Your task to perform on an android device: all mails in gmail Image 0: 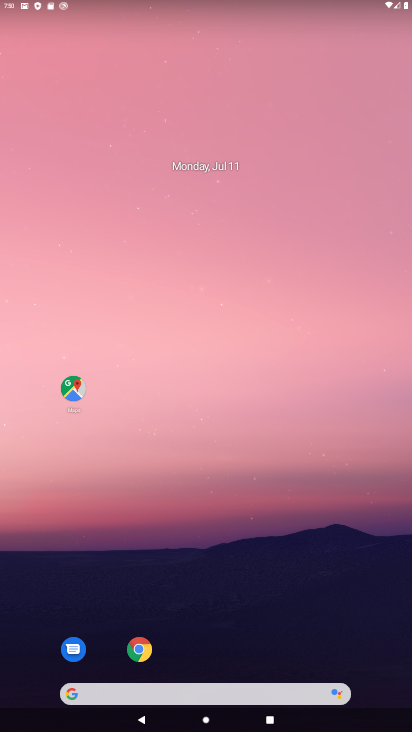
Step 0: drag from (238, 637) to (234, 56)
Your task to perform on an android device: all mails in gmail Image 1: 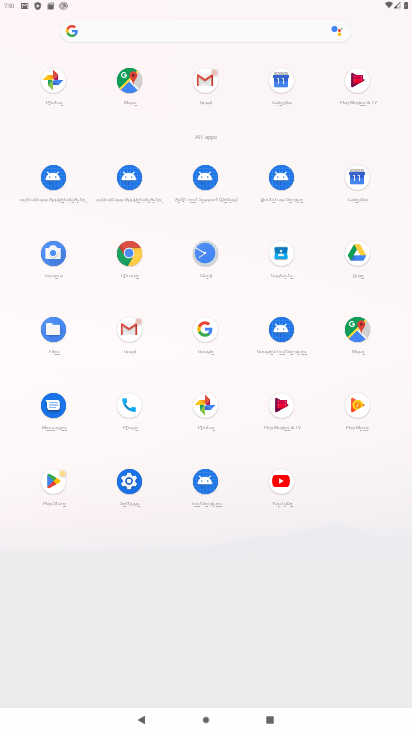
Step 1: click (121, 329)
Your task to perform on an android device: all mails in gmail Image 2: 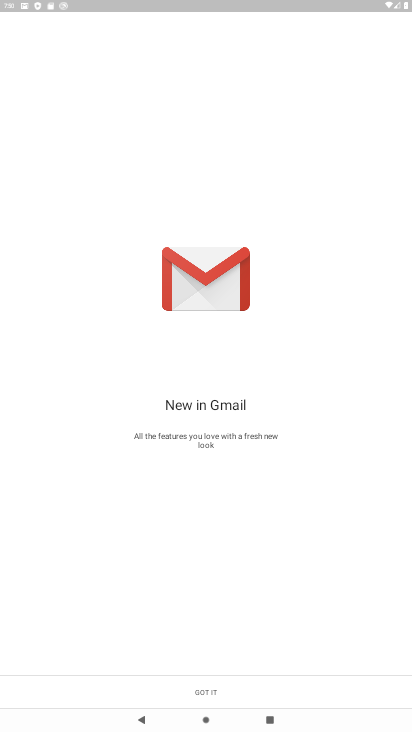
Step 2: click (197, 694)
Your task to perform on an android device: all mails in gmail Image 3: 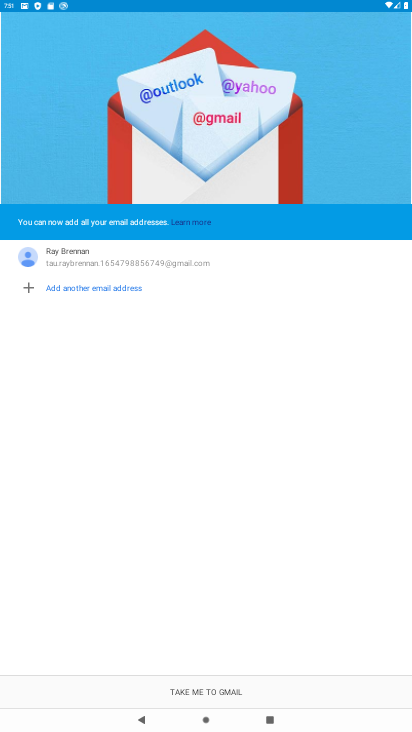
Step 3: click (197, 694)
Your task to perform on an android device: all mails in gmail Image 4: 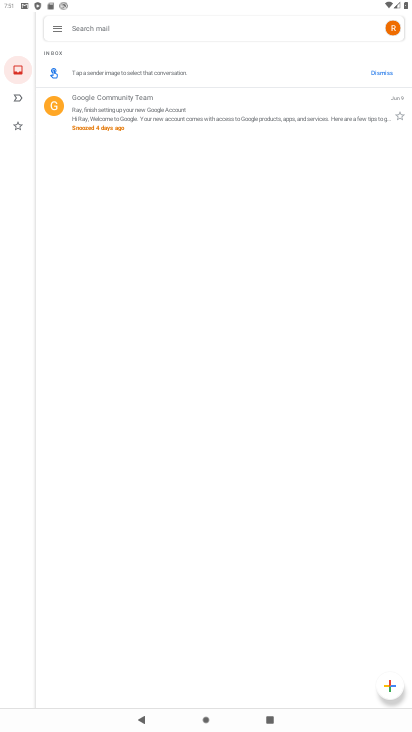
Step 4: click (54, 32)
Your task to perform on an android device: all mails in gmail Image 5: 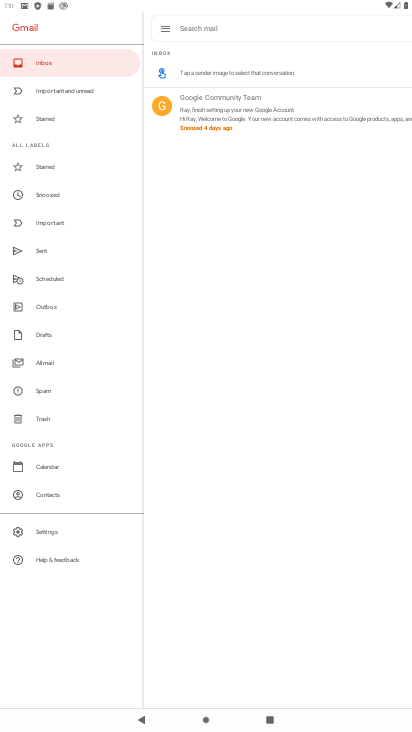
Step 5: click (39, 362)
Your task to perform on an android device: all mails in gmail Image 6: 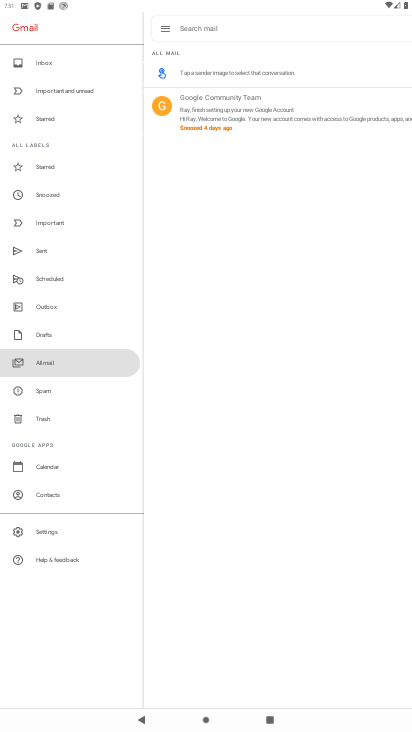
Step 6: task complete